Your task to perform on an android device: check out phone information Image 0: 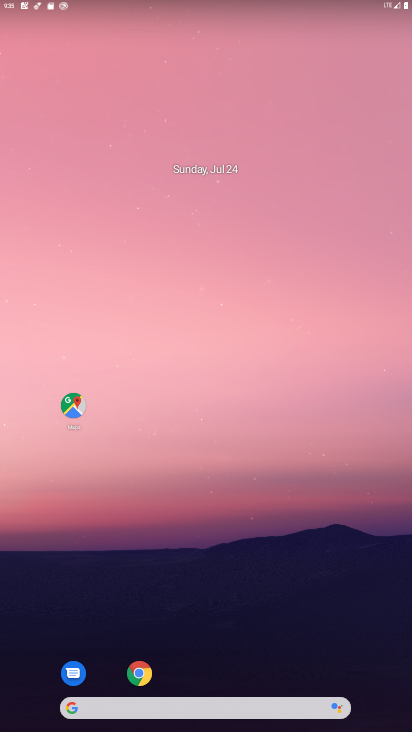
Step 0: drag from (206, 649) to (167, 24)
Your task to perform on an android device: check out phone information Image 1: 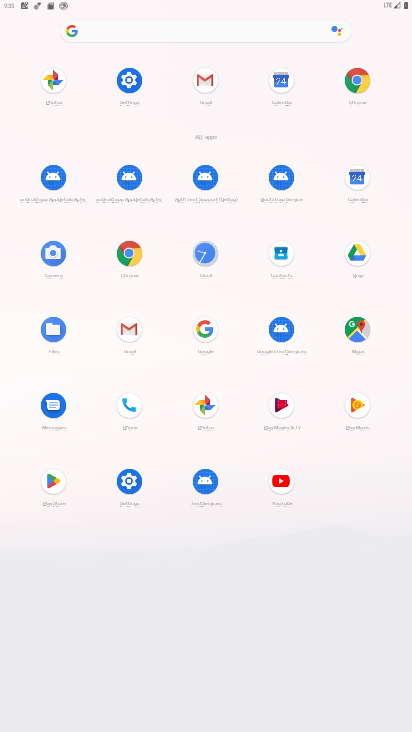
Step 1: click (129, 488)
Your task to perform on an android device: check out phone information Image 2: 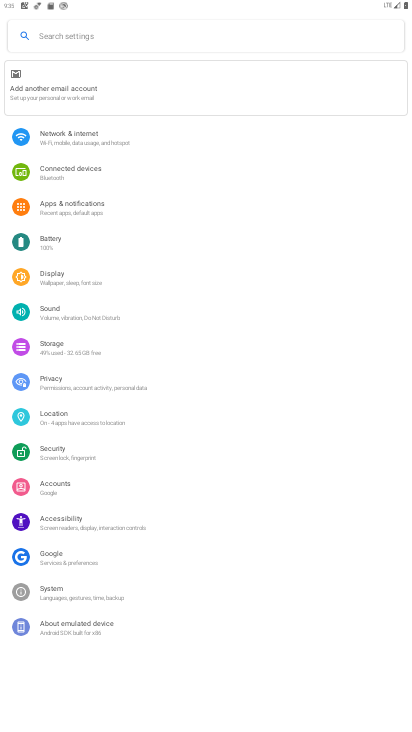
Step 2: press home button
Your task to perform on an android device: check out phone information Image 3: 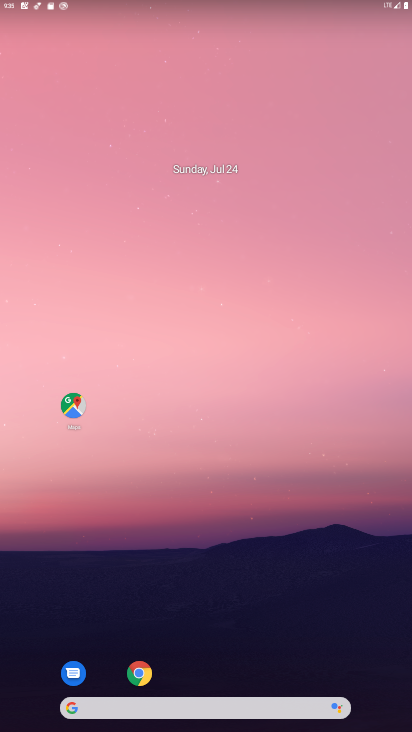
Step 3: drag from (242, 667) to (205, 79)
Your task to perform on an android device: check out phone information Image 4: 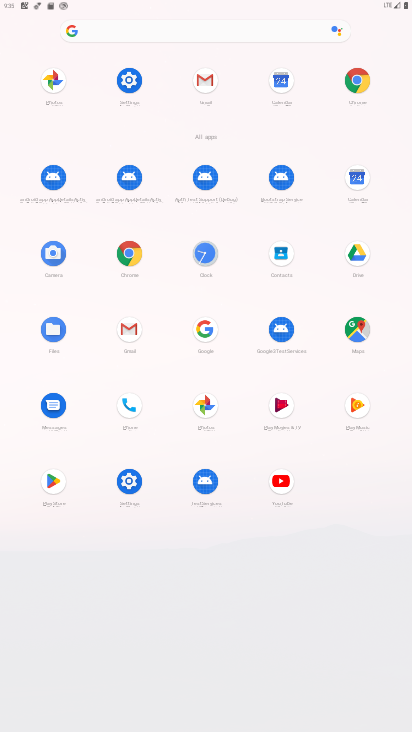
Step 4: click (137, 480)
Your task to perform on an android device: check out phone information Image 5: 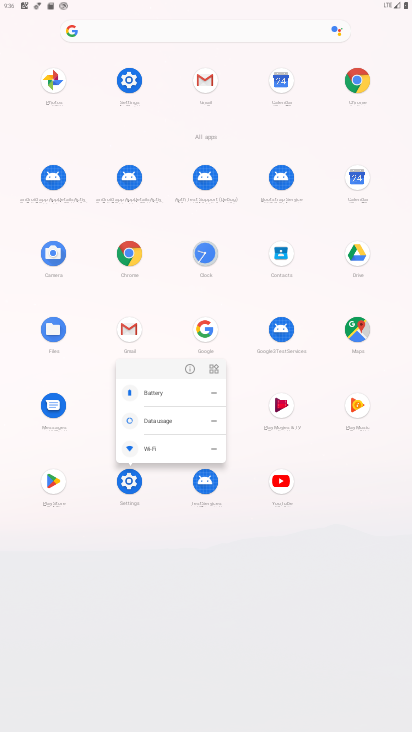
Step 5: click (126, 494)
Your task to perform on an android device: check out phone information Image 6: 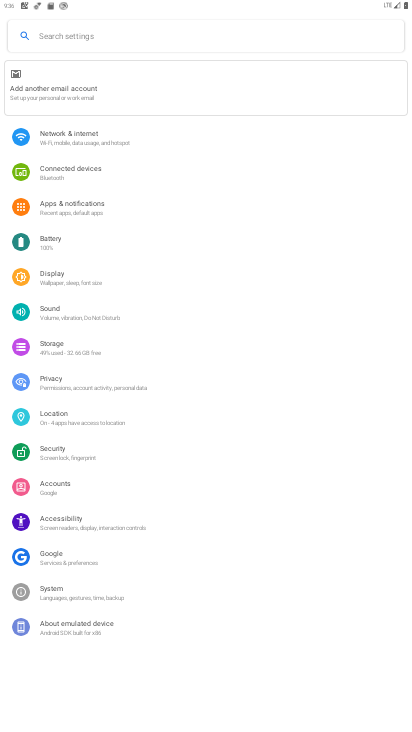
Step 6: click (71, 635)
Your task to perform on an android device: check out phone information Image 7: 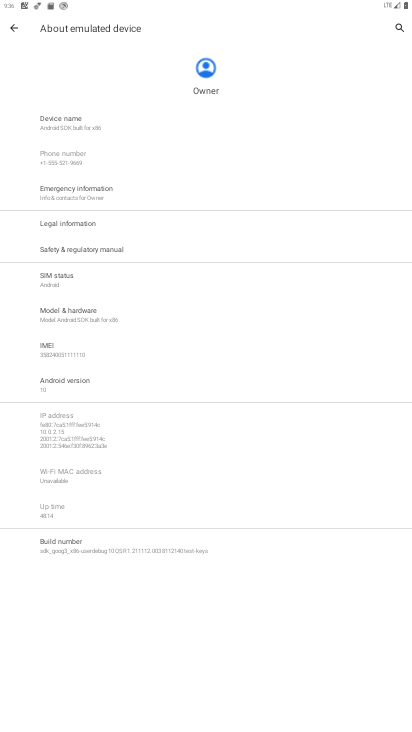
Step 7: task complete